Your task to perform on an android device: search for starred emails in the gmail app Image 0: 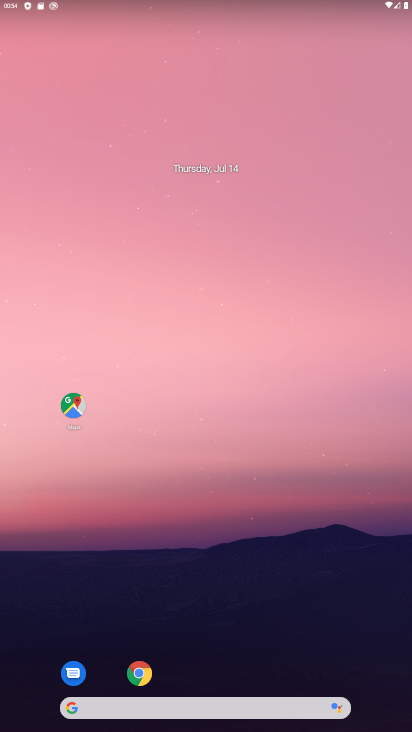
Step 0: drag from (311, 658) to (275, 123)
Your task to perform on an android device: search for starred emails in the gmail app Image 1: 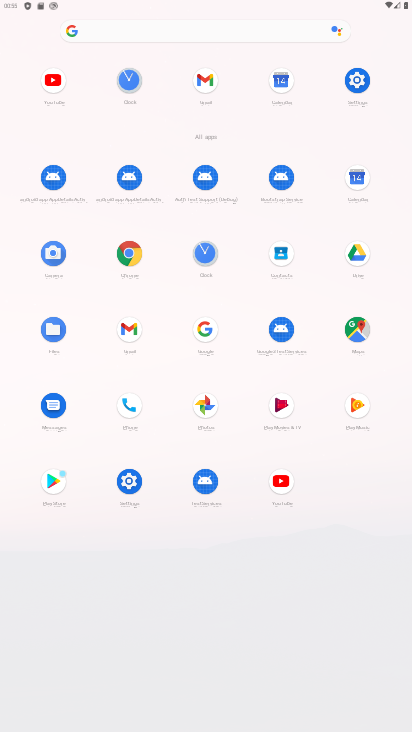
Step 1: click (133, 337)
Your task to perform on an android device: search for starred emails in the gmail app Image 2: 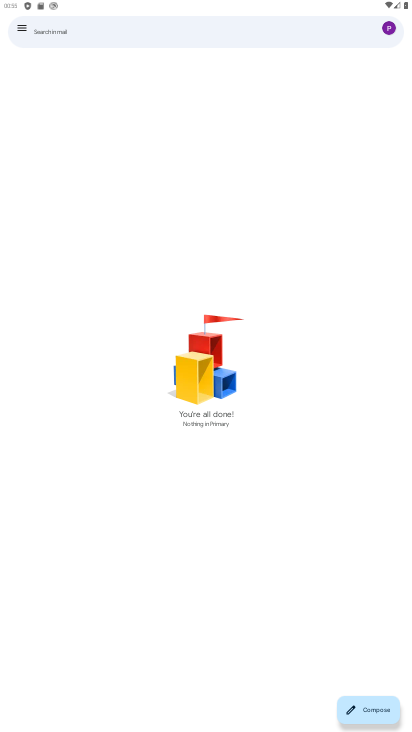
Step 2: task complete